Your task to perform on an android device: change text size in settings app Image 0: 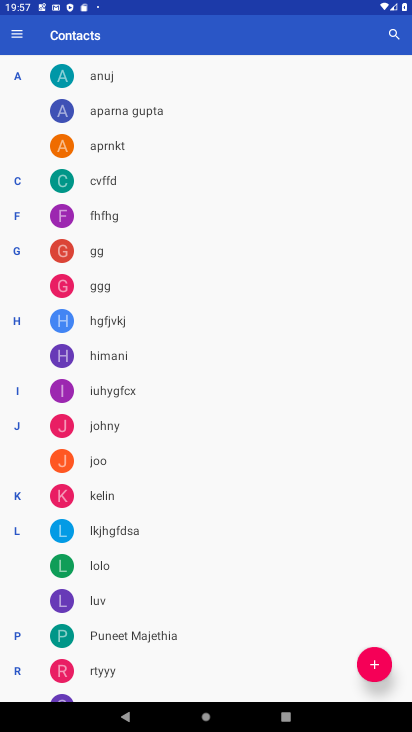
Step 0: press home button
Your task to perform on an android device: change text size in settings app Image 1: 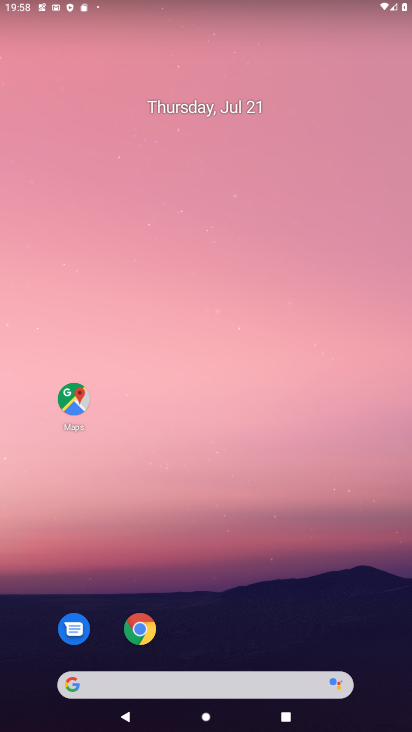
Step 1: drag from (108, 446) to (274, 62)
Your task to perform on an android device: change text size in settings app Image 2: 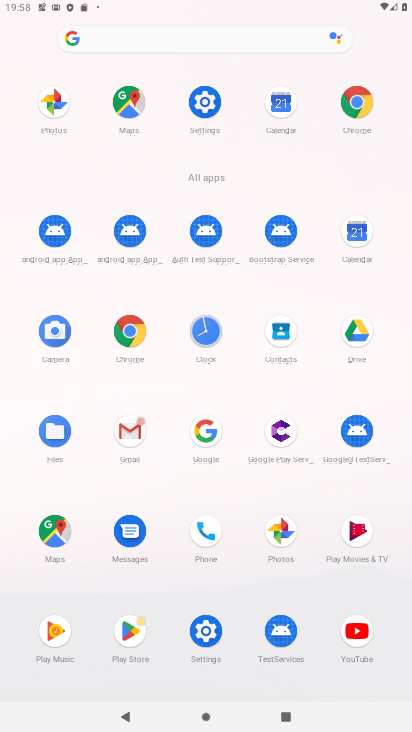
Step 2: click (205, 105)
Your task to perform on an android device: change text size in settings app Image 3: 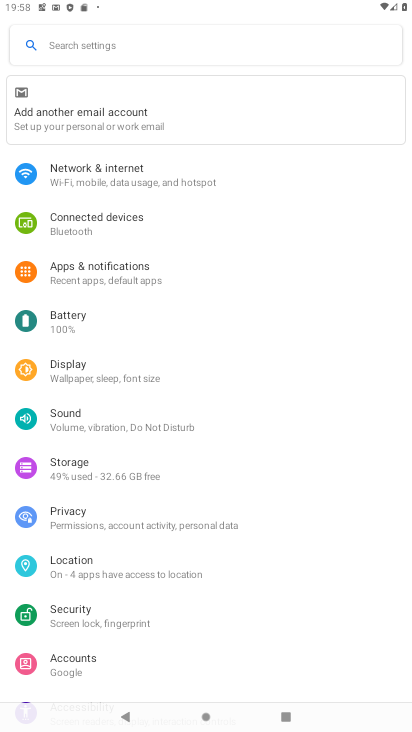
Step 3: click (114, 386)
Your task to perform on an android device: change text size in settings app Image 4: 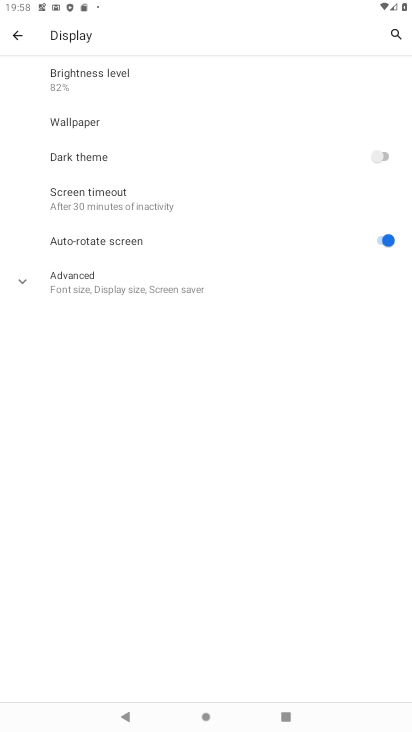
Step 4: click (109, 289)
Your task to perform on an android device: change text size in settings app Image 5: 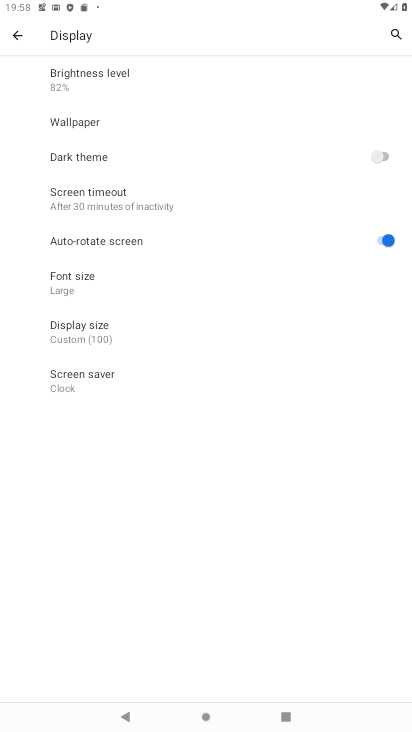
Step 5: click (109, 287)
Your task to perform on an android device: change text size in settings app Image 6: 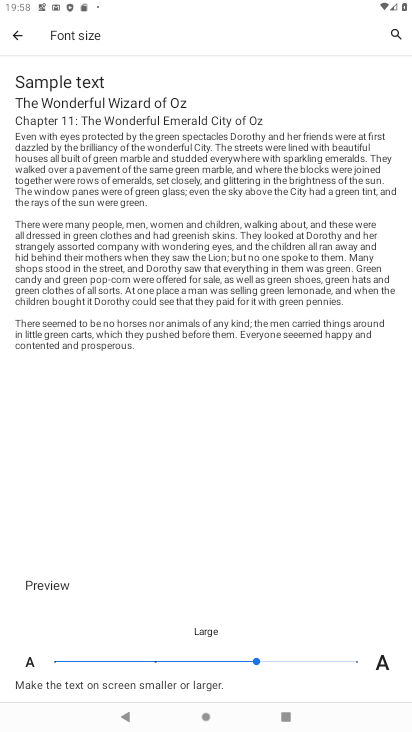
Step 6: task complete